Your task to perform on an android device: turn on wifi Image 0: 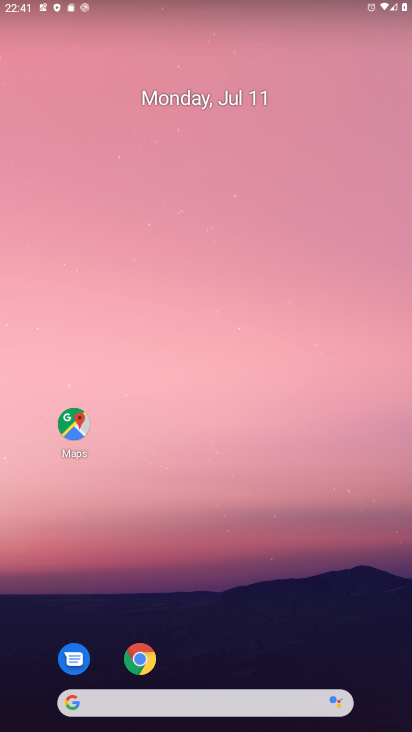
Step 0: drag from (217, 632) to (246, 115)
Your task to perform on an android device: turn on wifi Image 1: 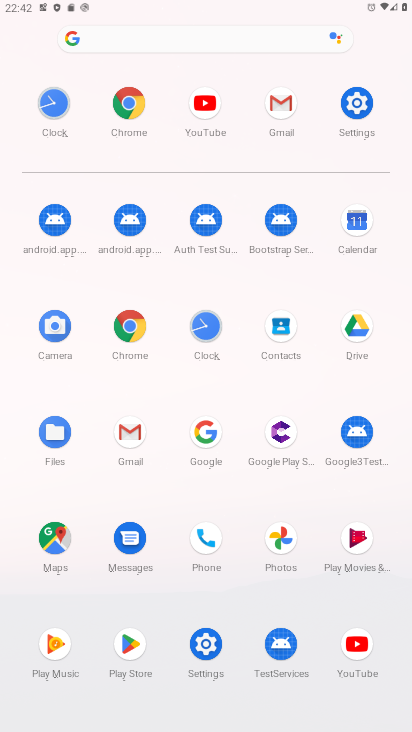
Step 1: drag from (227, 630) to (264, 208)
Your task to perform on an android device: turn on wifi Image 2: 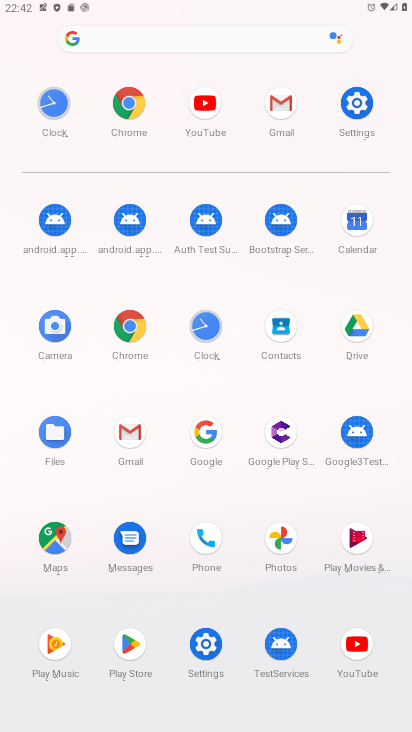
Step 2: click (355, 99)
Your task to perform on an android device: turn on wifi Image 3: 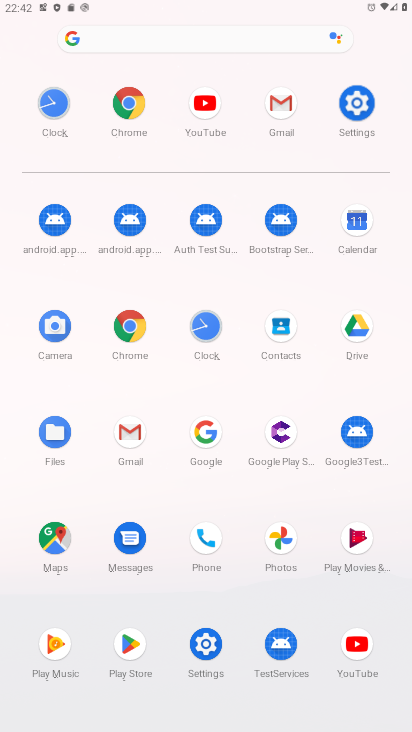
Step 3: click (355, 99)
Your task to perform on an android device: turn on wifi Image 4: 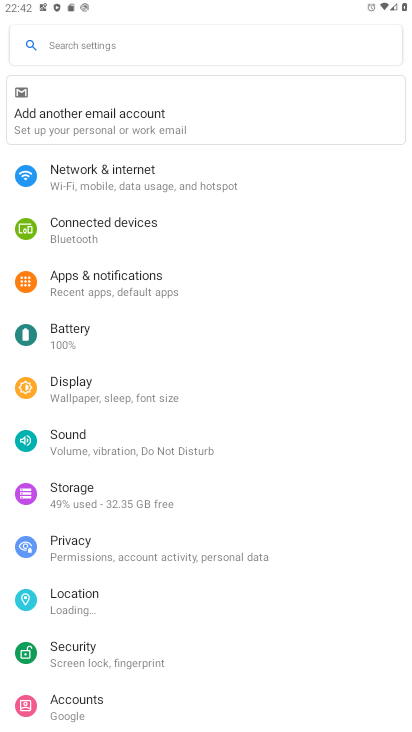
Step 4: click (115, 182)
Your task to perform on an android device: turn on wifi Image 5: 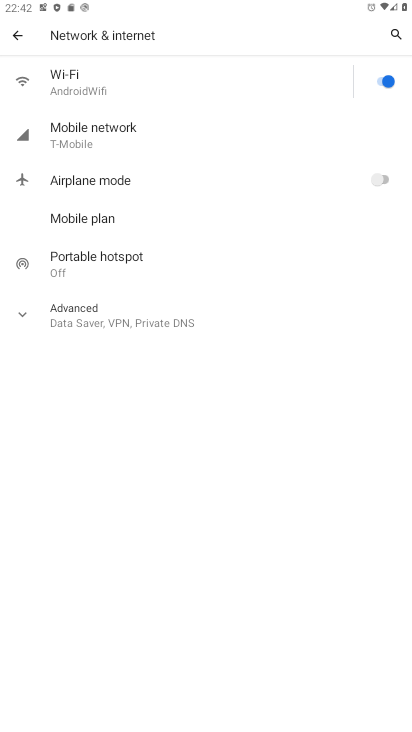
Step 5: click (135, 86)
Your task to perform on an android device: turn on wifi Image 6: 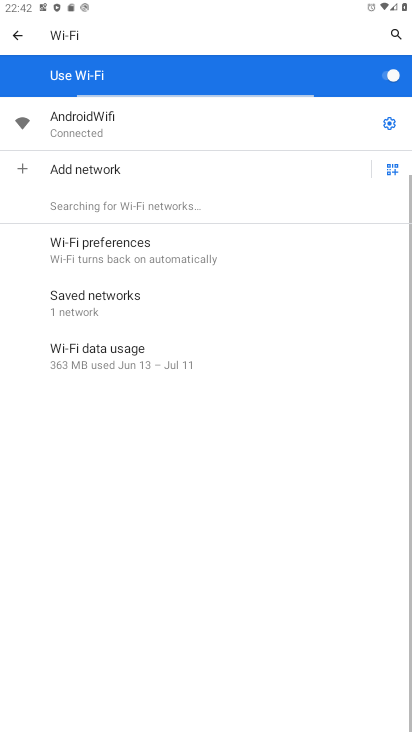
Step 6: task complete